Your task to perform on an android device: Turn on the flashlight Image 0: 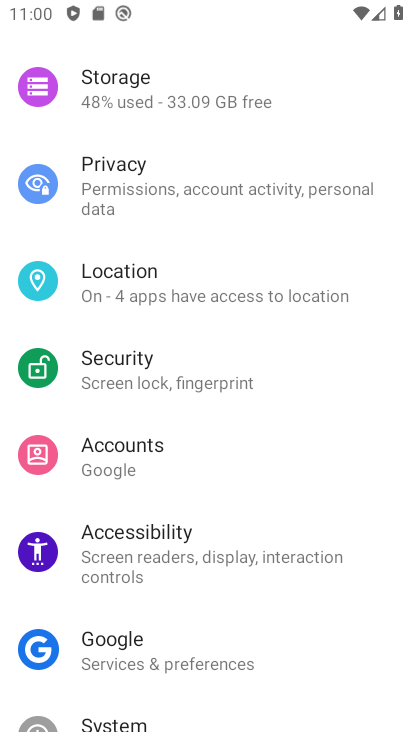
Step 0: press home button
Your task to perform on an android device: Turn on the flashlight Image 1: 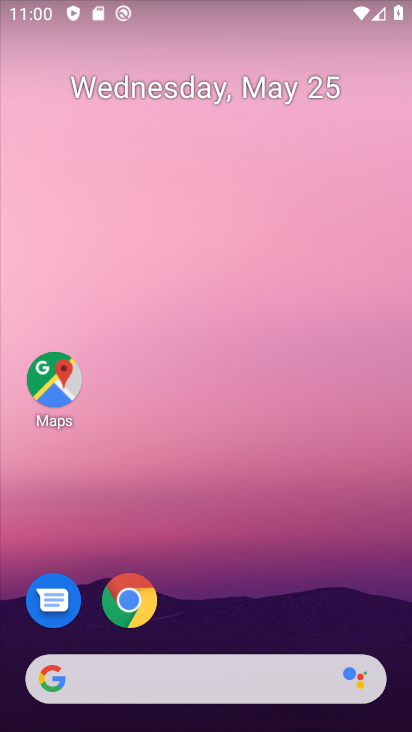
Step 1: task complete